Your task to perform on an android device: make emails show in primary in the gmail app Image 0: 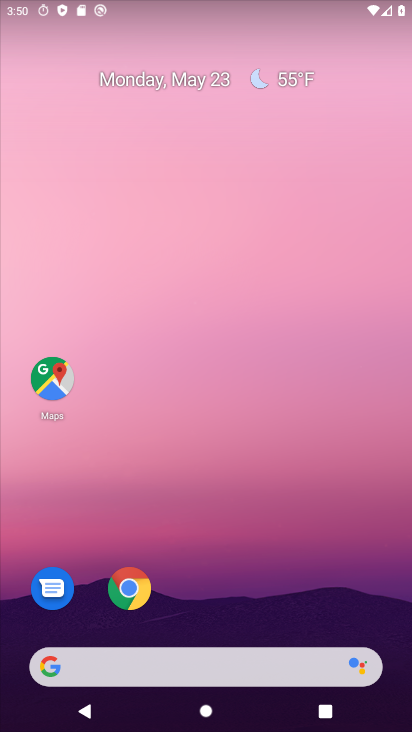
Step 0: drag from (229, 614) to (292, 129)
Your task to perform on an android device: make emails show in primary in the gmail app Image 1: 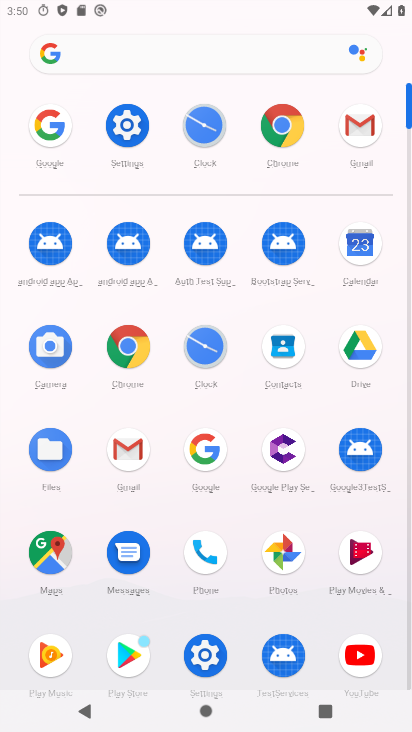
Step 1: click (364, 128)
Your task to perform on an android device: make emails show in primary in the gmail app Image 2: 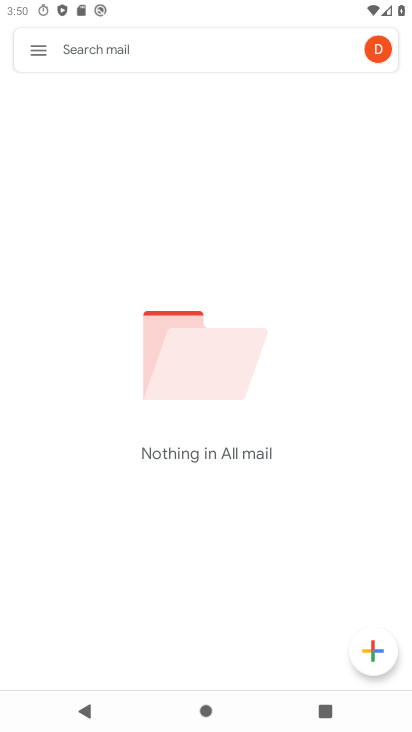
Step 2: click (43, 41)
Your task to perform on an android device: make emails show in primary in the gmail app Image 3: 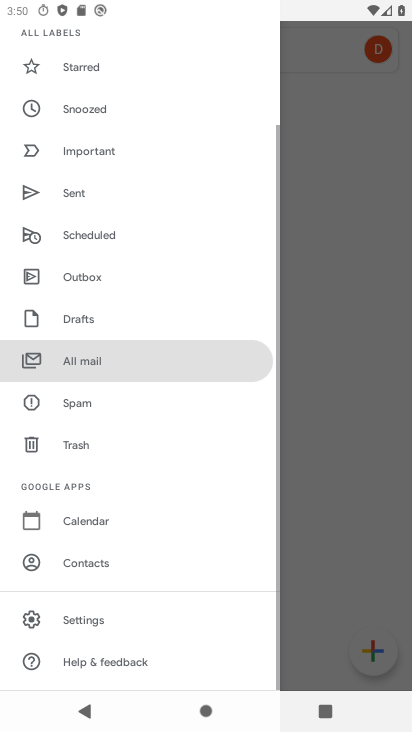
Step 3: click (70, 629)
Your task to perform on an android device: make emails show in primary in the gmail app Image 4: 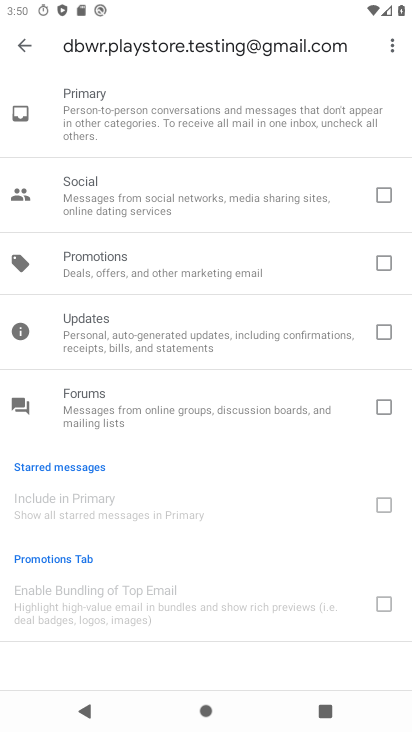
Step 4: task complete